Your task to perform on an android device: Do I have any events today? Image 0: 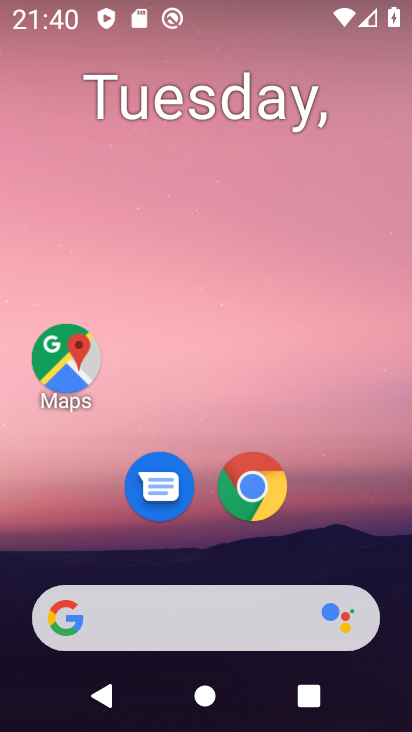
Step 0: press home button
Your task to perform on an android device: Do I have any events today? Image 1: 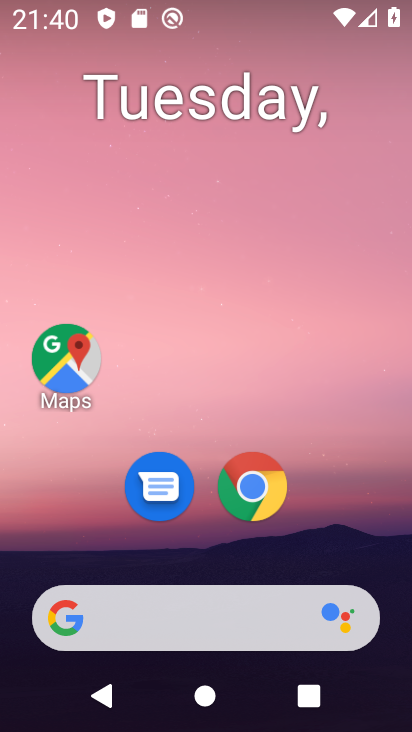
Step 1: drag from (353, 550) to (318, 154)
Your task to perform on an android device: Do I have any events today? Image 2: 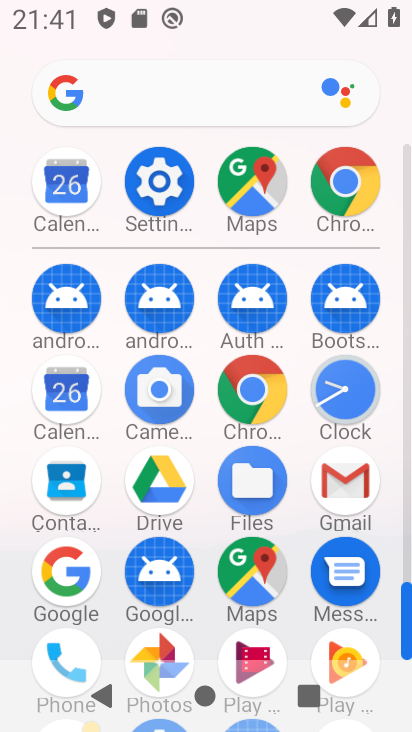
Step 2: click (58, 409)
Your task to perform on an android device: Do I have any events today? Image 3: 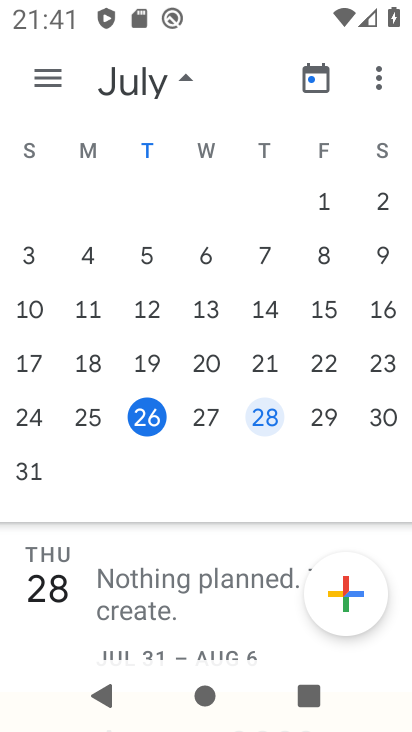
Step 3: click (199, 421)
Your task to perform on an android device: Do I have any events today? Image 4: 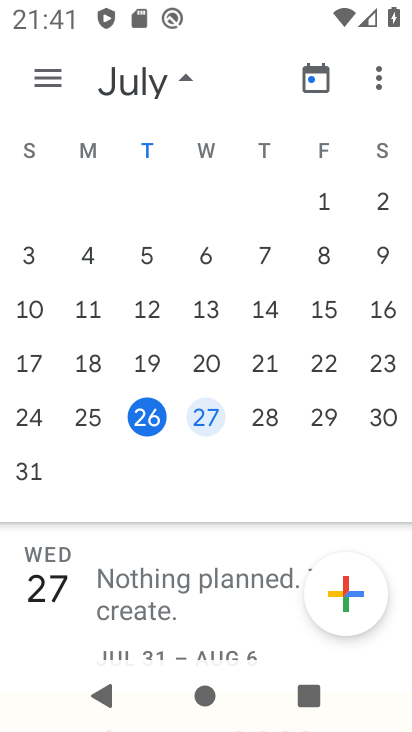
Step 4: task complete